Your task to perform on an android device: Open Chrome and go to settings Image 0: 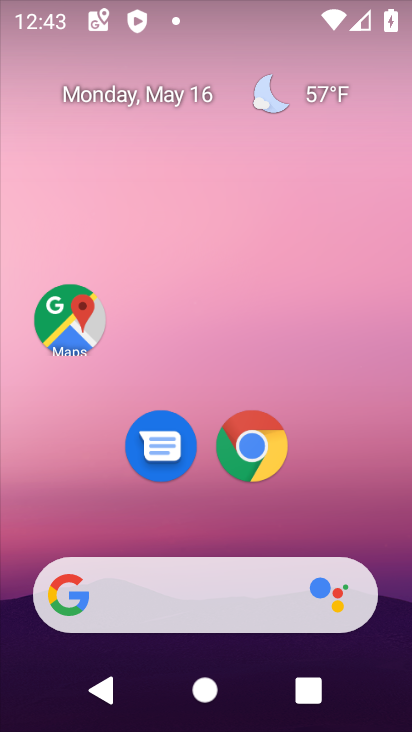
Step 0: click (263, 474)
Your task to perform on an android device: Open Chrome and go to settings Image 1: 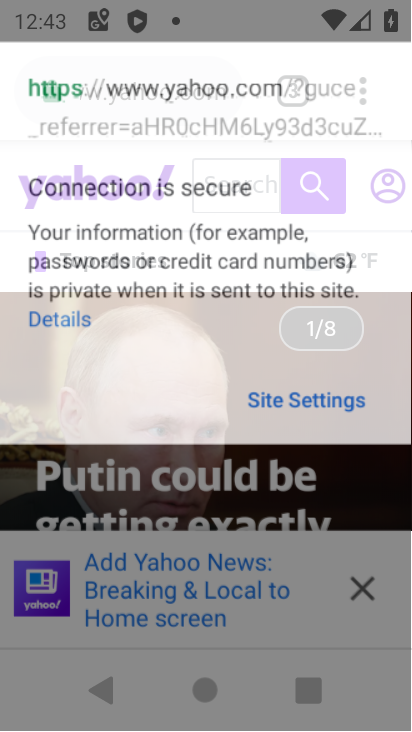
Step 1: click (263, 474)
Your task to perform on an android device: Open Chrome and go to settings Image 2: 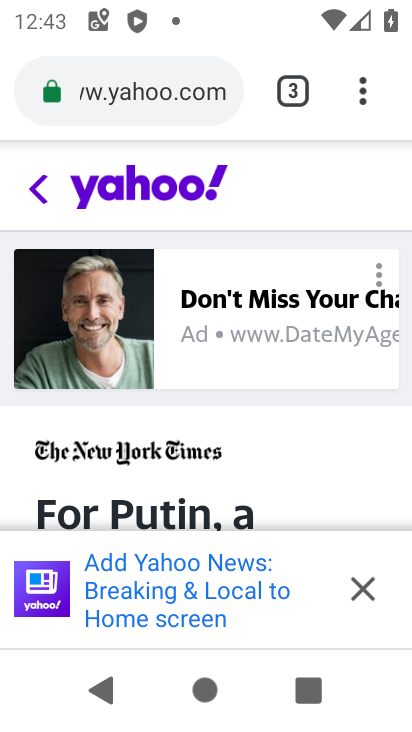
Step 2: click (363, 83)
Your task to perform on an android device: Open Chrome and go to settings Image 3: 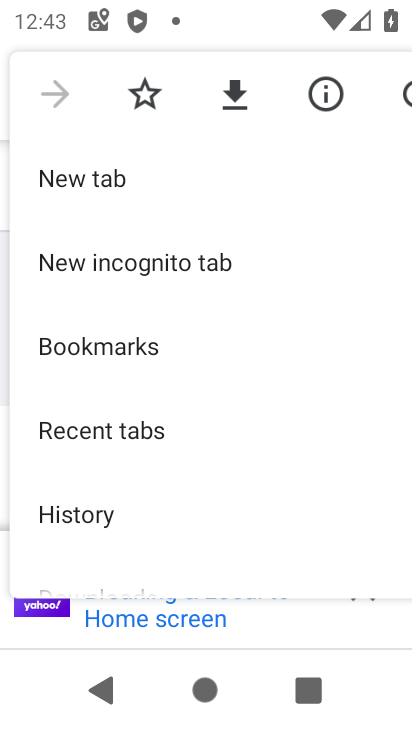
Step 3: click (119, 448)
Your task to perform on an android device: Open Chrome and go to settings Image 4: 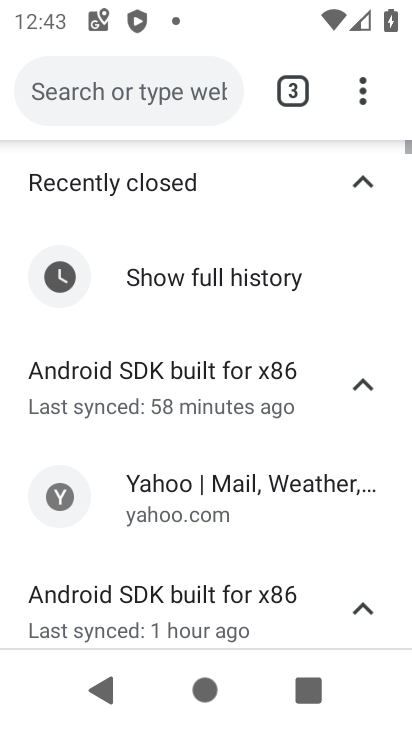
Step 4: drag from (140, 471) to (105, 254)
Your task to perform on an android device: Open Chrome and go to settings Image 5: 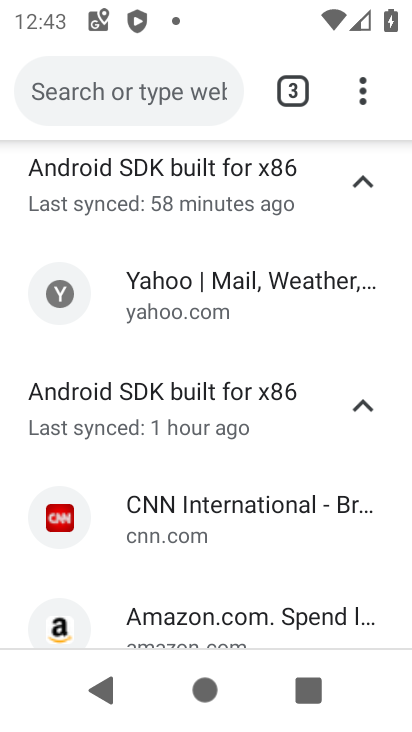
Step 5: click (357, 84)
Your task to perform on an android device: Open Chrome and go to settings Image 6: 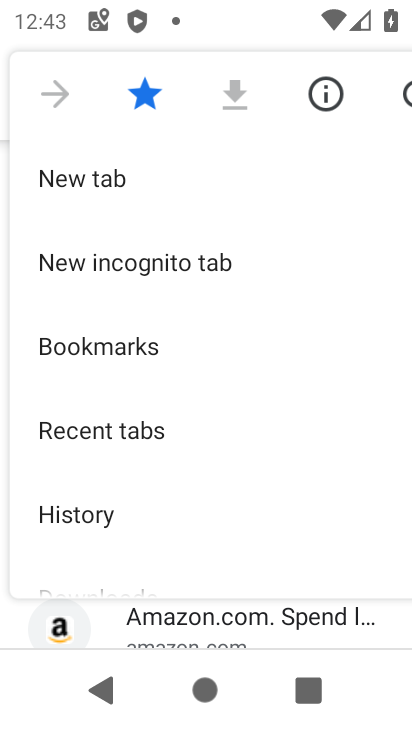
Step 6: drag from (319, 443) to (251, 118)
Your task to perform on an android device: Open Chrome and go to settings Image 7: 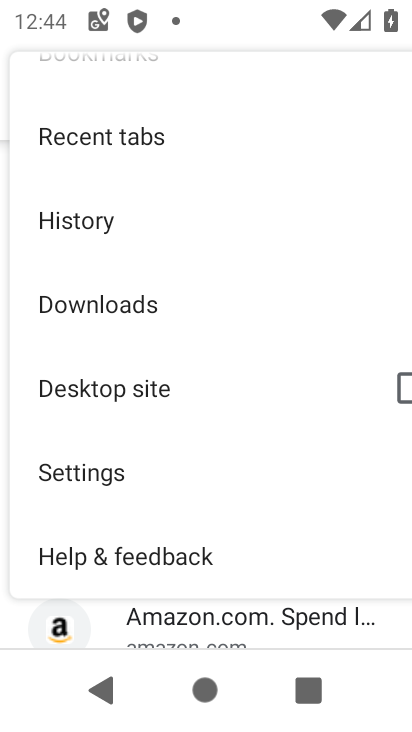
Step 7: click (110, 474)
Your task to perform on an android device: Open Chrome and go to settings Image 8: 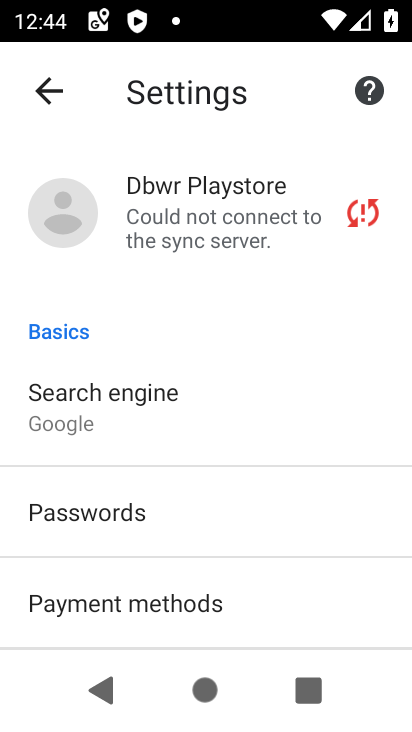
Step 8: task complete